Your task to perform on an android device: delete browsing data in the chrome app Image 0: 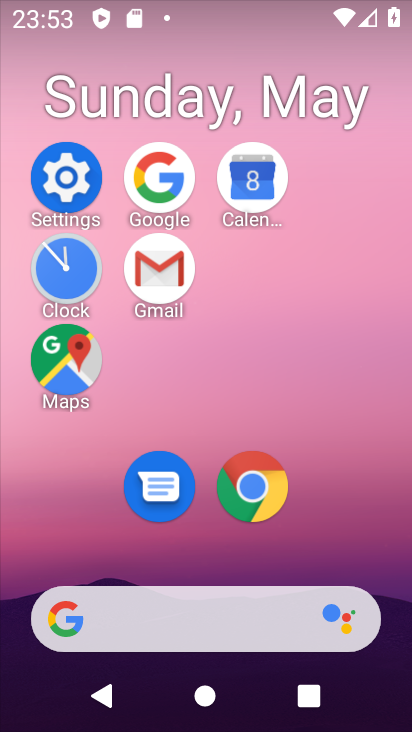
Step 0: click (270, 490)
Your task to perform on an android device: delete browsing data in the chrome app Image 1: 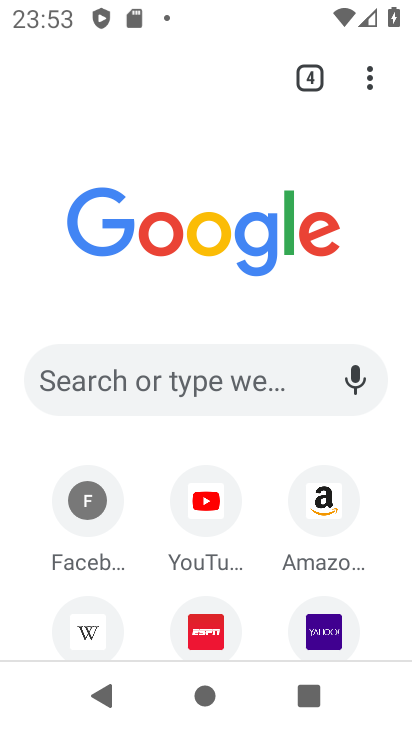
Step 1: click (364, 83)
Your task to perform on an android device: delete browsing data in the chrome app Image 2: 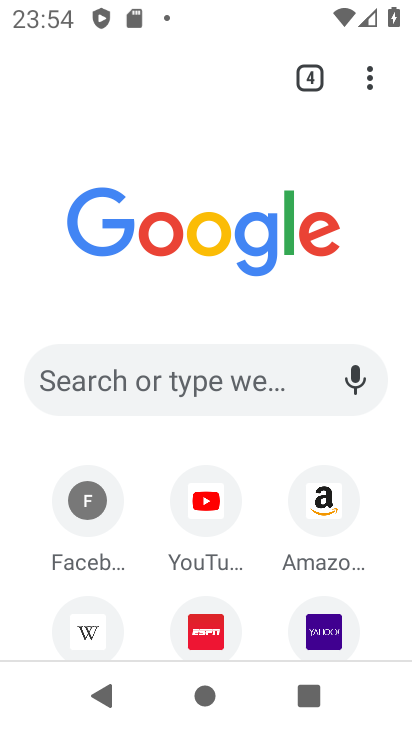
Step 2: click (368, 74)
Your task to perform on an android device: delete browsing data in the chrome app Image 3: 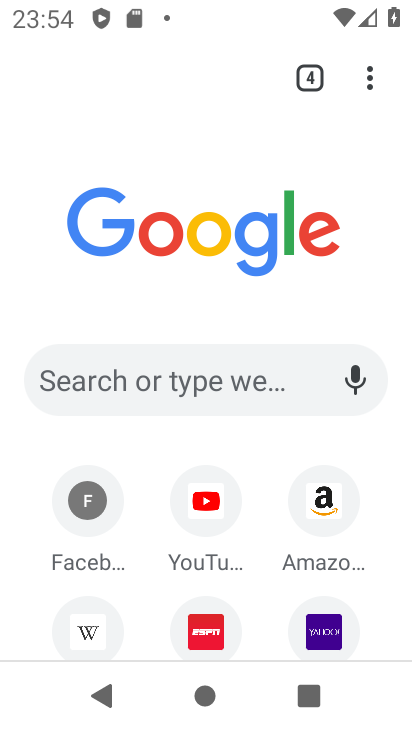
Step 3: click (365, 70)
Your task to perform on an android device: delete browsing data in the chrome app Image 4: 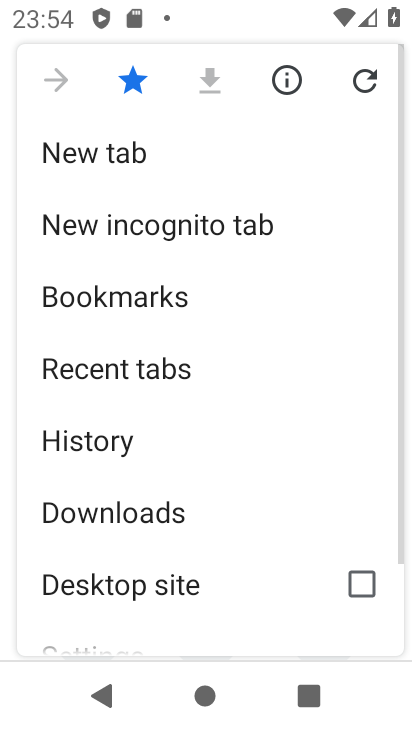
Step 4: drag from (238, 546) to (242, 134)
Your task to perform on an android device: delete browsing data in the chrome app Image 5: 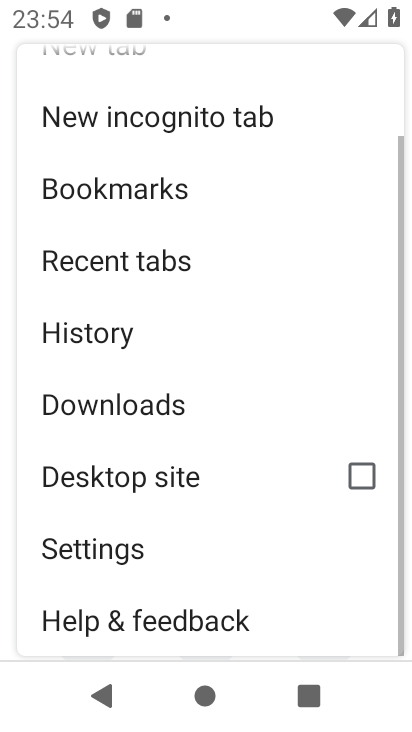
Step 5: click (161, 533)
Your task to perform on an android device: delete browsing data in the chrome app Image 6: 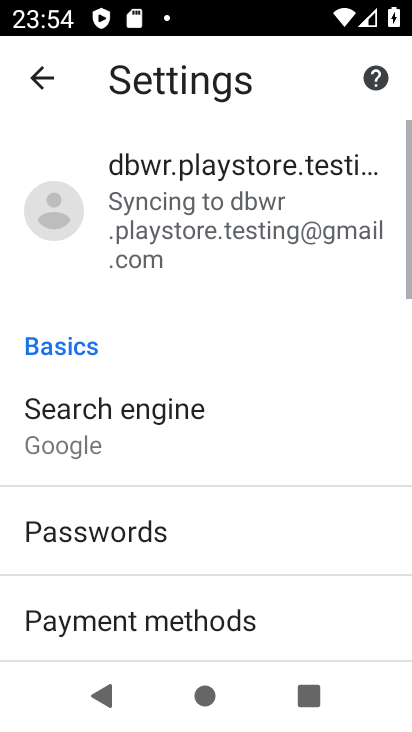
Step 6: drag from (161, 533) to (164, 146)
Your task to perform on an android device: delete browsing data in the chrome app Image 7: 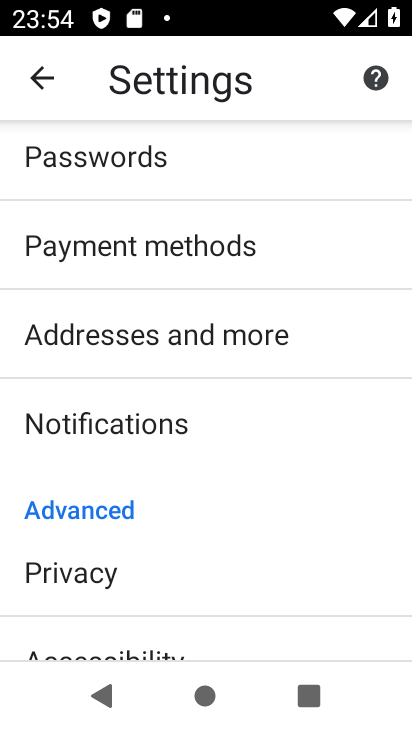
Step 7: drag from (244, 584) to (246, 284)
Your task to perform on an android device: delete browsing data in the chrome app Image 8: 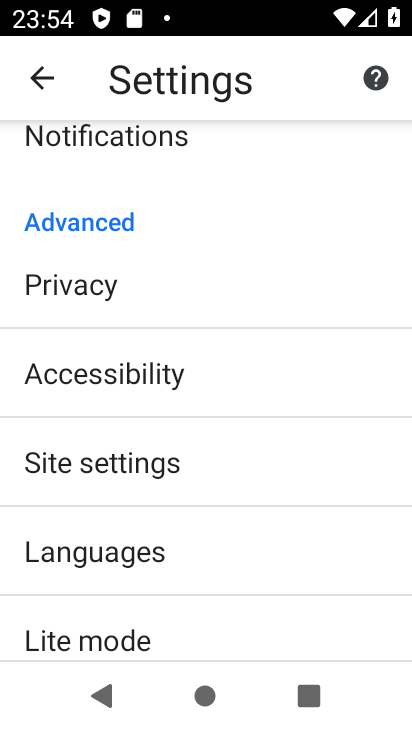
Step 8: click (180, 311)
Your task to perform on an android device: delete browsing data in the chrome app Image 9: 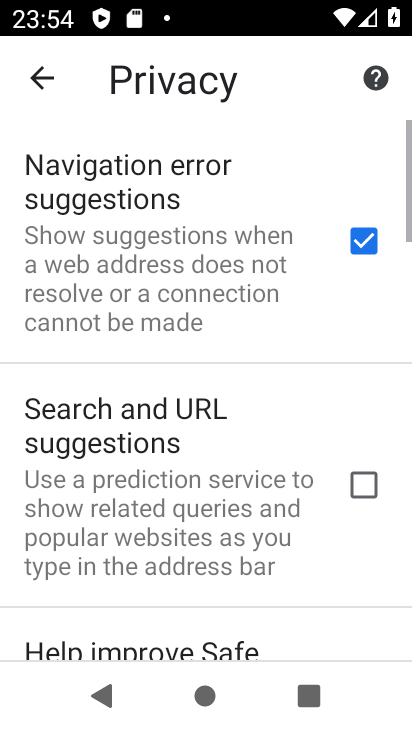
Step 9: drag from (249, 572) to (216, 181)
Your task to perform on an android device: delete browsing data in the chrome app Image 10: 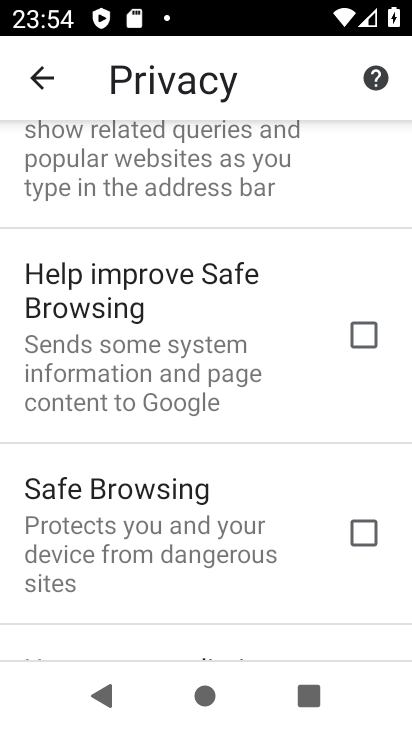
Step 10: drag from (252, 586) to (286, 181)
Your task to perform on an android device: delete browsing data in the chrome app Image 11: 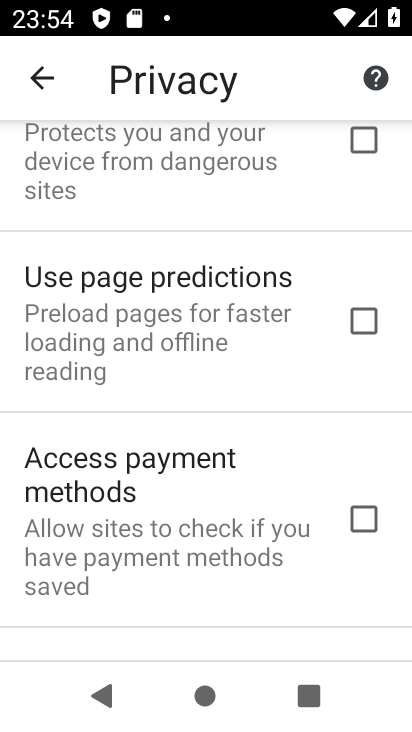
Step 11: drag from (304, 606) to (296, 213)
Your task to perform on an android device: delete browsing data in the chrome app Image 12: 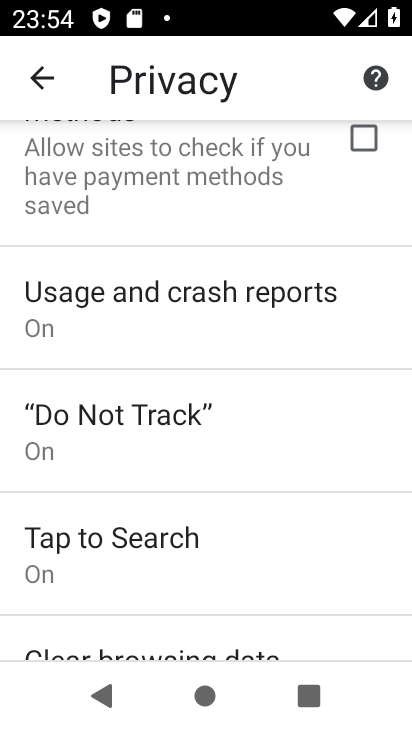
Step 12: drag from (263, 551) to (283, 171)
Your task to perform on an android device: delete browsing data in the chrome app Image 13: 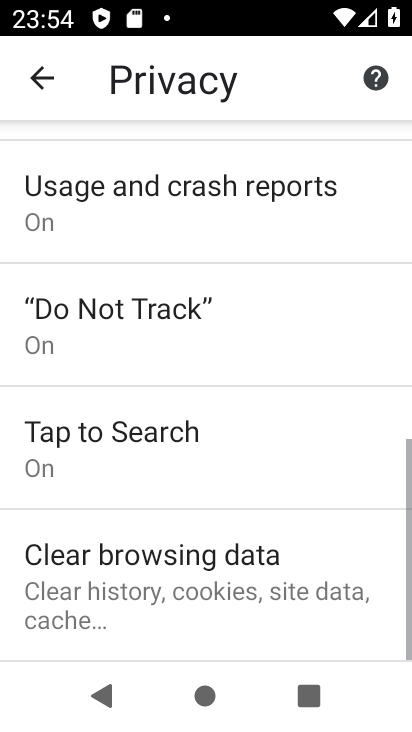
Step 13: click (217, 579)
Your task to perform on an android device: delete browsing data in the chrome app Image 14: 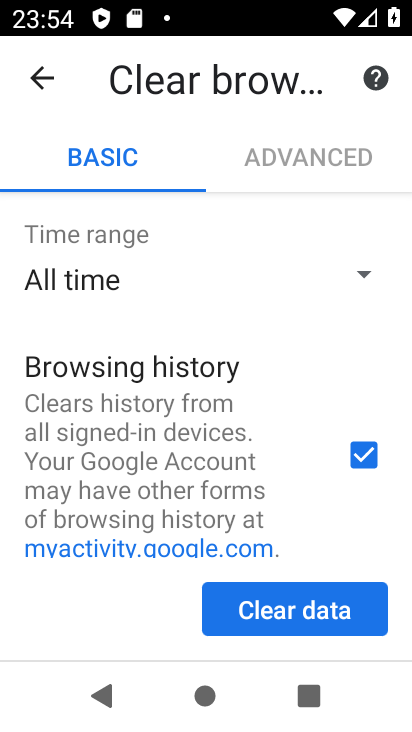
Step 14: click (337, 608)
Your task to perform on an android device: delete browsing data in the chrome app Image 15: 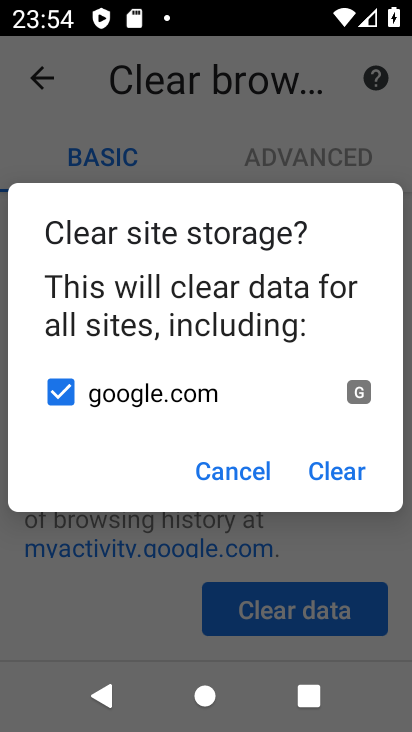
Step 15: click (354, 453)
Your task to perform on an android device: delete browsing data in the chrome app Image 16: 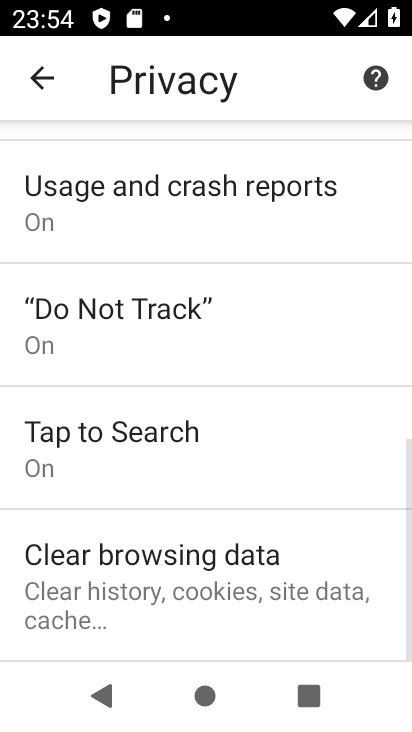
Step 16: task complete